Your task to perform on an android device: toggle improve location accuracy Image 0: 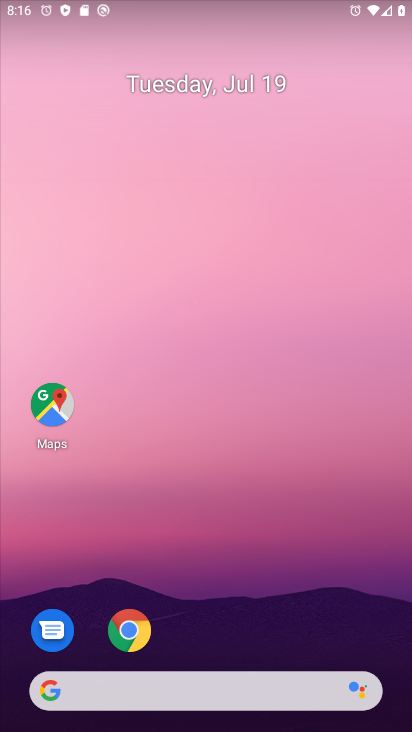
Step 0: drag from (235, 444) to (196, 257)
Your task to perform on an android device: toggle improve location accuracy Image 1: 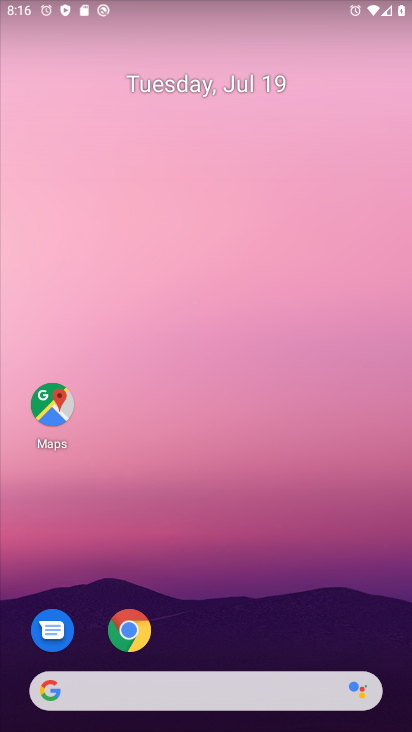
Step 1: drag from (277, 571) to (287, 153)
Your task to perform on an android device: toggle improve location accuracy Image 2: 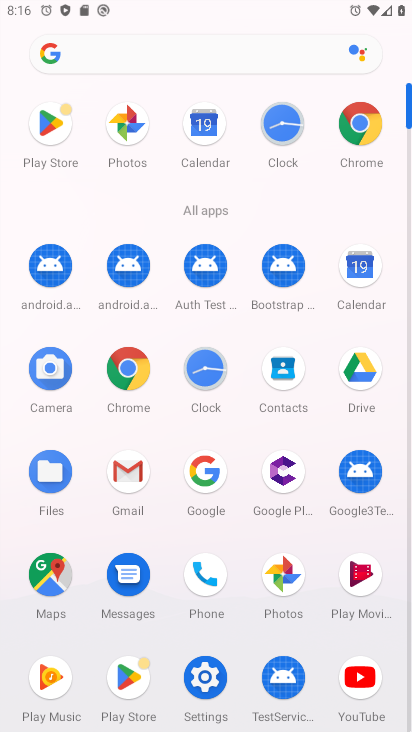
Step 2: click (200, 681)
Your task to perform on an android device: toggle improve location accuracy Image 3: 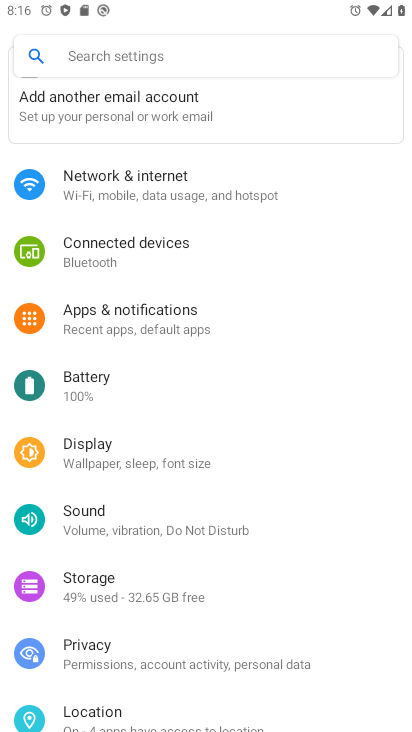
Step 3: click (96, 714)
Your task to perform on an android device: toggle improve location accuracy Image 4: 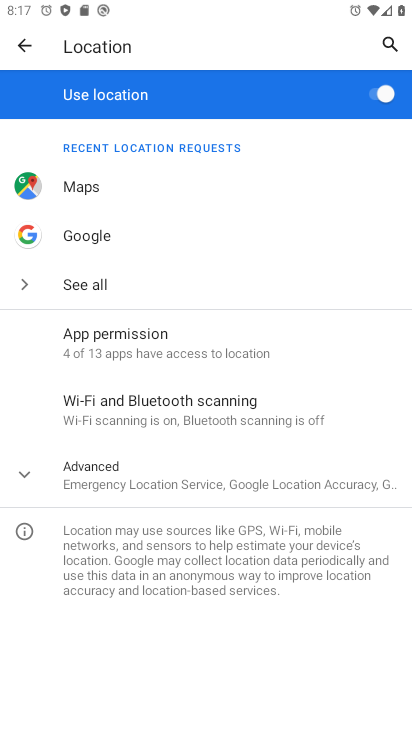
Step 4: click (79, 465)
Your task to perform on an android device: toggle improve location accuracy Image 5: 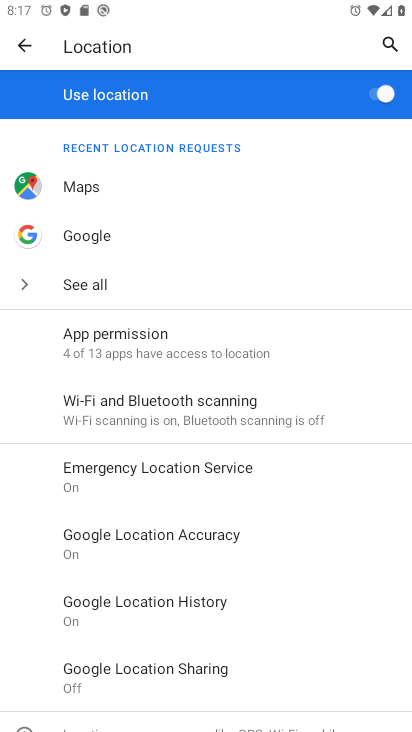
Step 5: task complete